Your task to perform on an android device: Add "beats solo 3" to the cart on amazon.com Image 0: 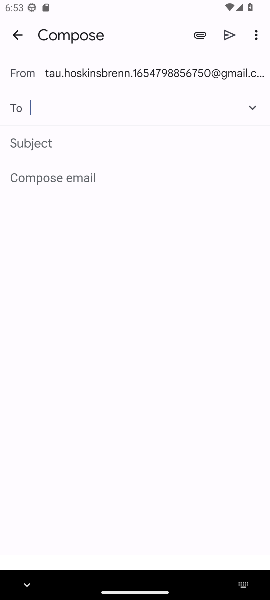
Step 0: press home button
Your task to perform on an android device: Add "beats solo 3" to the cart on amazon.com Image 1: 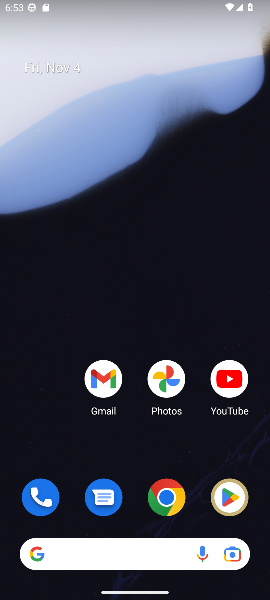
Step 1: click (171, 490)
Your task to perform on an android device: Add "beats solo 3" to the cart on amazon.com Image 2: 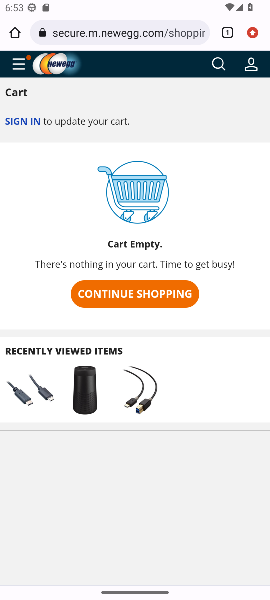
Step 2: click (107, 31)
Your task to perform on an android device: Add "beats solo 3" to the cart on amazon.com Image 3: 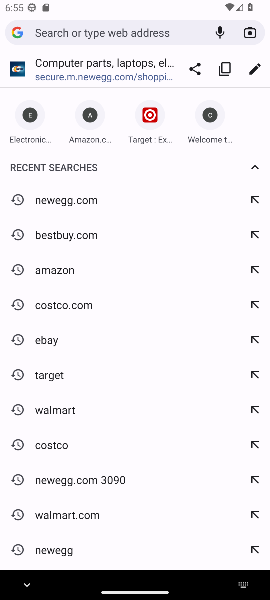
Step 3: click (45, 276)
Your task to perform on an android device: Add "beats solo 3" to the cart on amazon.com Image 4: 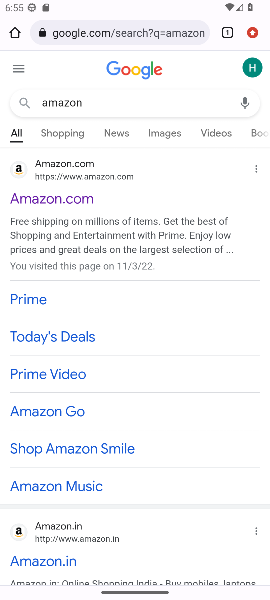
Step 4: click (53, 206)
Your task to perform on an android device: Add "beats solo 3" to the cart on amazon.com Image 5: 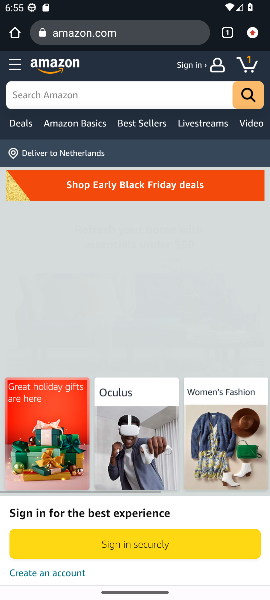
Step 5: click (111, 91)
Your task to perform on an android device: Add "beats solo 3" to the cart on amazon.com Image 6: 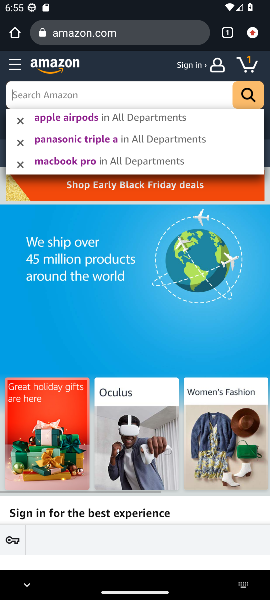
Step 6: type "beats solo 3"
Your task to perform on an android device: Add "beats solo 3" to the cart on amazon.com Image 7: 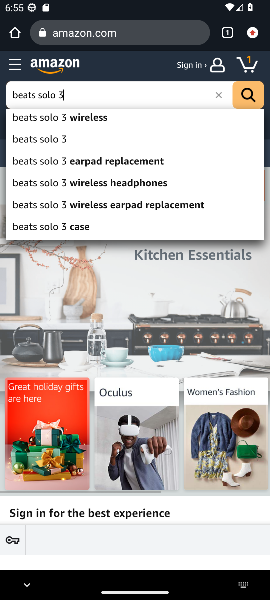
Step 7: click (39, 143)
Your task to perform on an android device: Add "beats solo 3" to the cart on amazon.com Image 8: 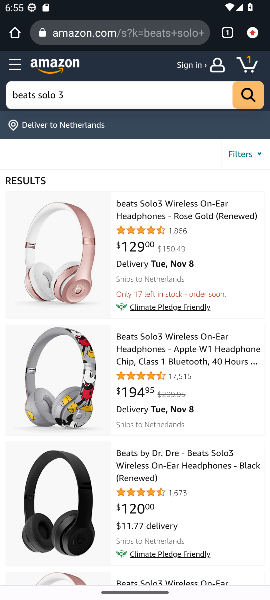
Step 8: click (85, 268)
Your task to perform on an android device: Add "beats solo 3" to the cart on amazon.com Image 9: 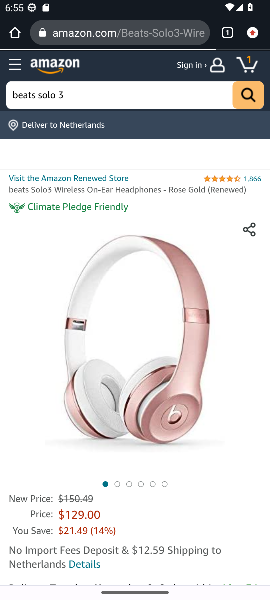
Step 9: drag from (197, 499) to (191, 263)
Your task to perform on an android device: Add "beats solo 3" to the cart on amazon.com Image 10: 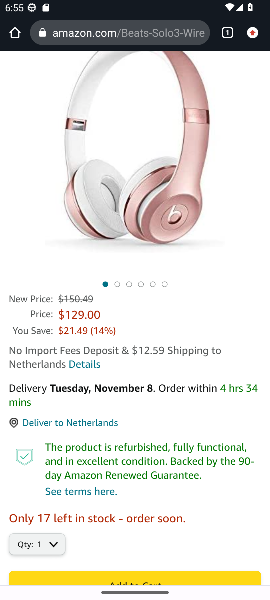
Step 10: drag from (152, 459) to (147, 300)
Your task to perform on an android device: Add "beats solo 3" to the cart on amazon.com Image 11: 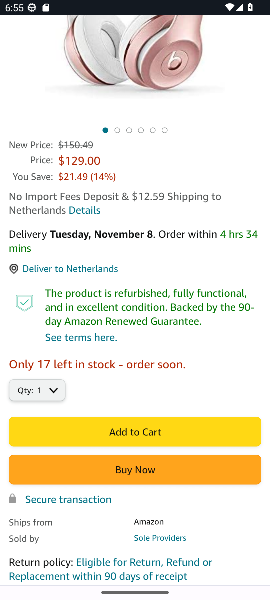
Step 11: click (138, 430)
Your task to perform on an android device: Add "beats solo 3" to the cart on amazon.com Image 12: 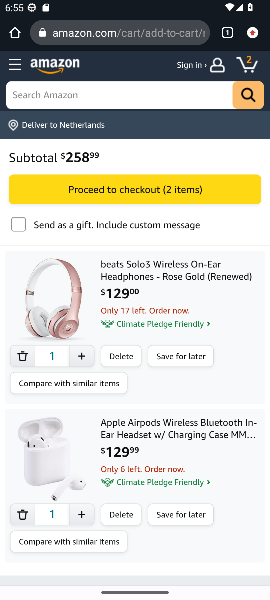
Step 12: task complete